Your task to perform on an android device: open a bookmark in the chrome app Image 0: 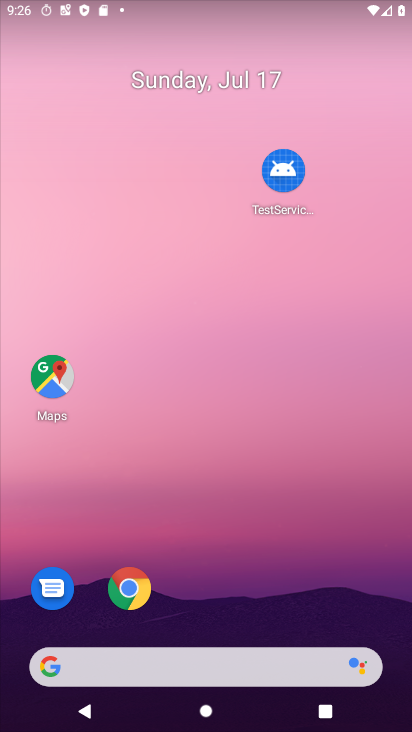
Step 0: drag from (217, 658) to (235, 167)
Your task to perform on an android device: open a bookmark in the chrome app Image 1: 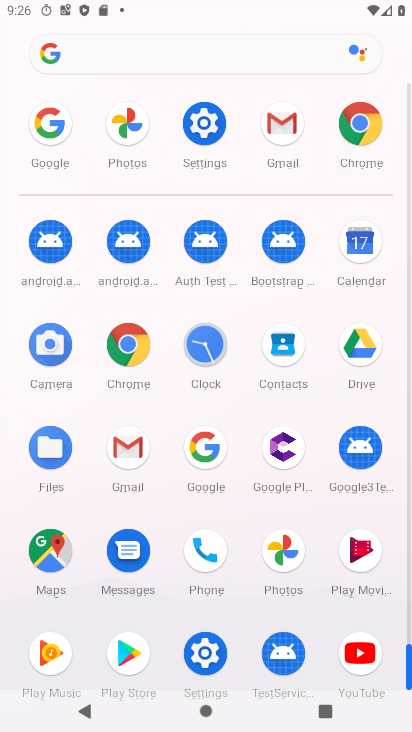
Step 1: click (350, 140)
Your task to perform on an android device: open a bookmark in the chrome app Image 2: 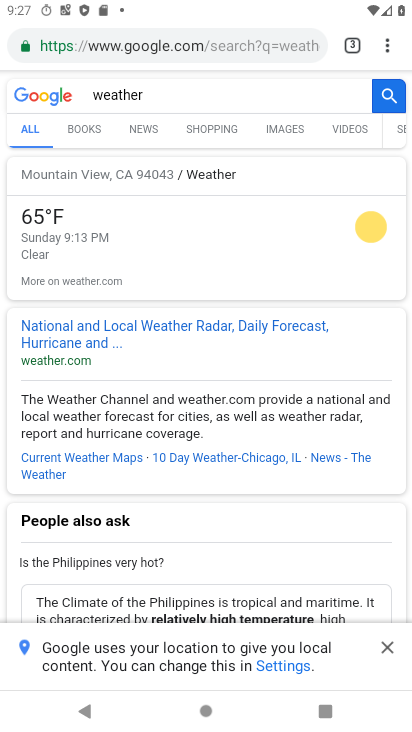
Step 2: click (393, 50)
Your task to perform on an android device: open a bookmark in the chrome app Image 3: 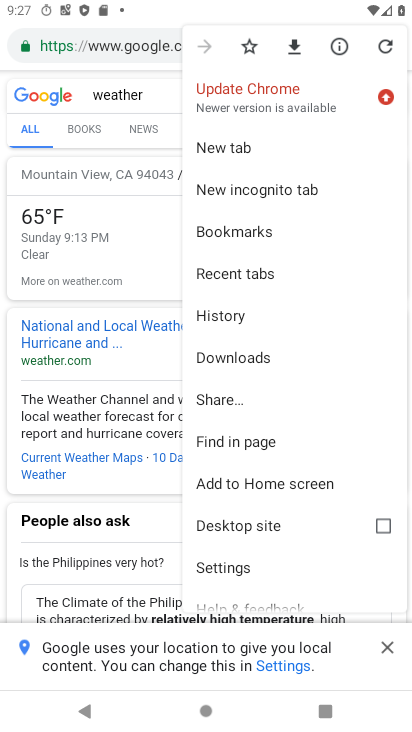
Step 3: click (239, 242)
Your task to perform on an android device: open a bookmark in the chrome app Image 4: 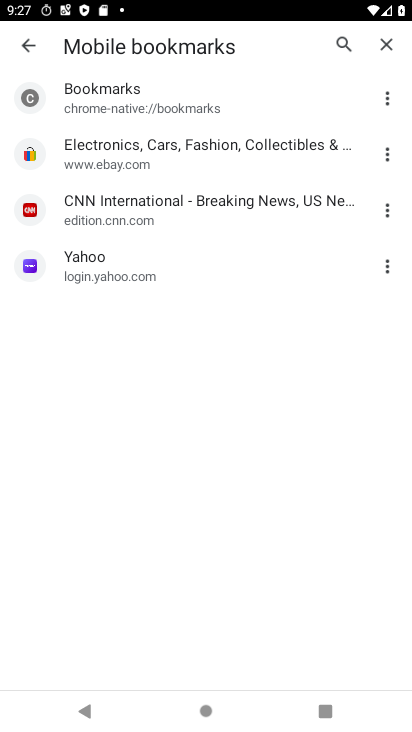
Step 4: click (158, 202)
Your task to perform on an android device: open a bookmark in the chrome app Image 5: 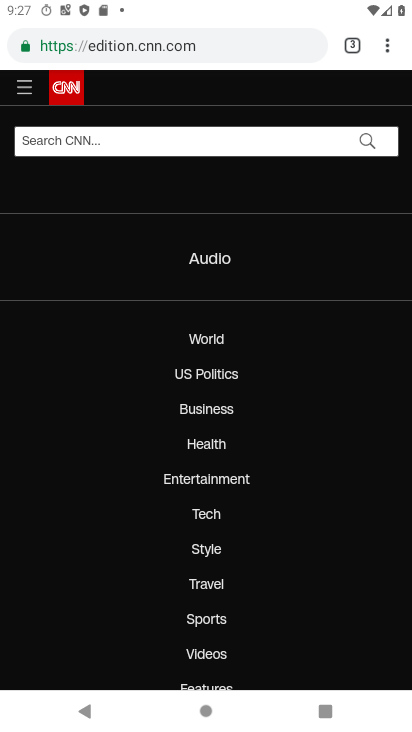
Step 5: task complete